Your task to perform on an android device: Open display settings Image 0: 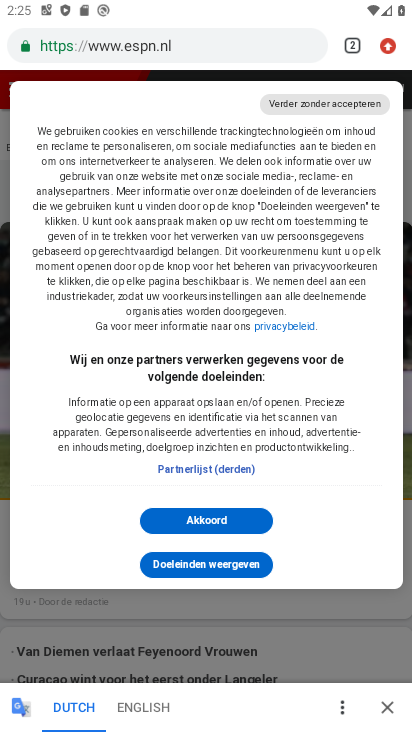
Step 0: press home button
Your task to perform on an android device: Open display settings Image 1: 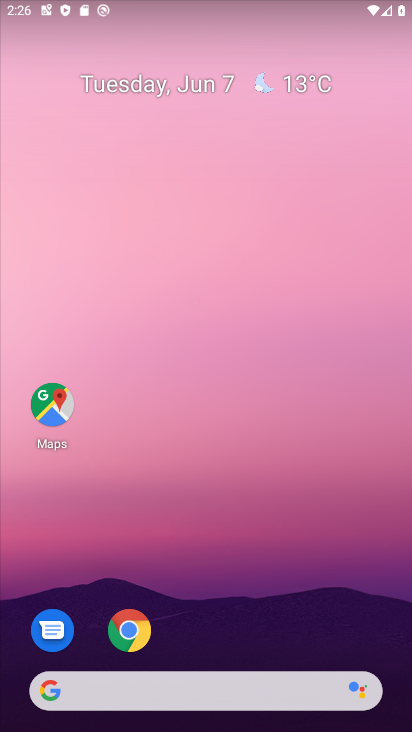
Step 1: drag from (302, 602) to (350, 278)
Your task to perform on an android device: Open display settings Image 2: 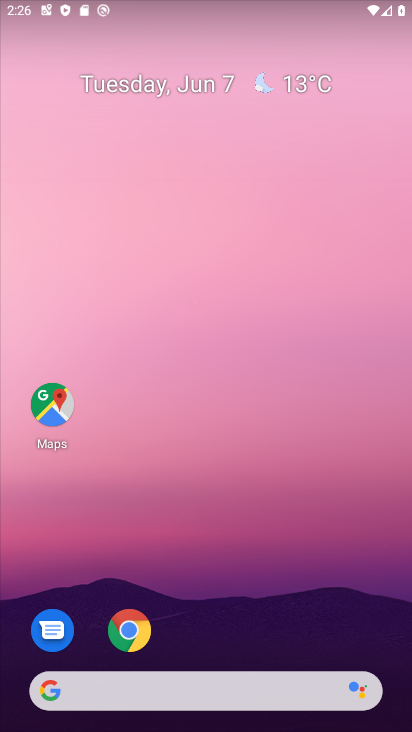
Step 2: drag from (292, 591) to (310, 183)
Your task to perform on an android device: Open display settings Image 3: 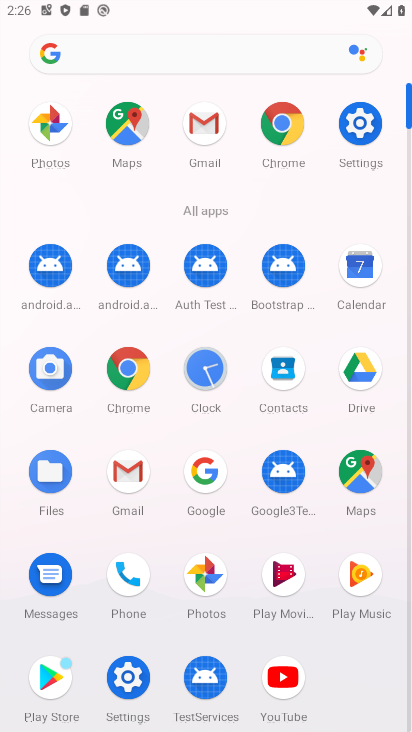
Step 3: click (353, 118)
Your task to perform on an android device: Open display settings Image 4: 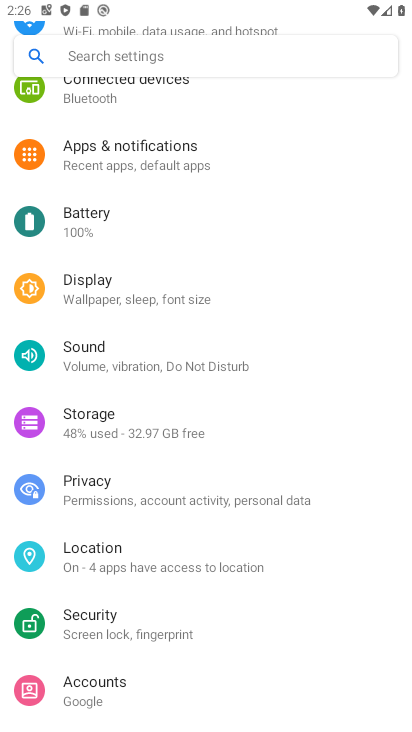
Step 4: click (146, 275)
Your task to perform on an android device: Open display settings Image 5: 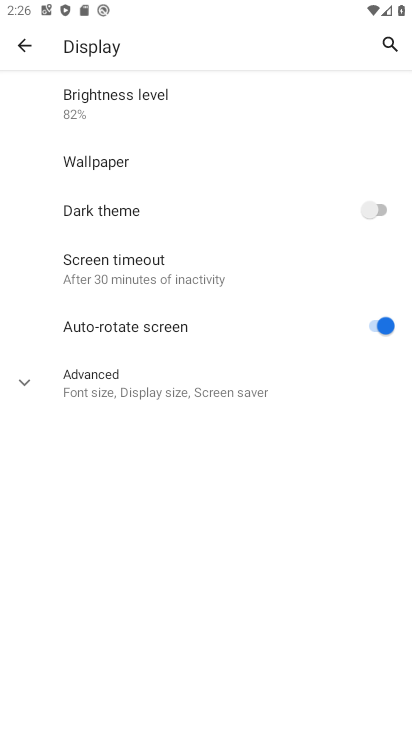
Step 5: task complete